Your task to perform on an android device: Open internet settings Image 0: 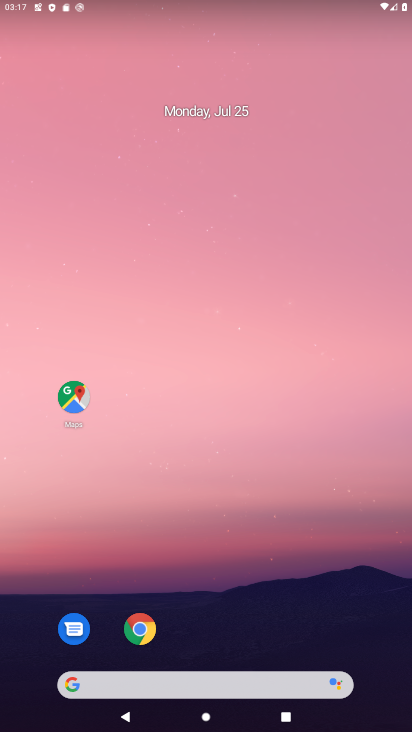
Step 0: drag from (191, 632) to (216, 90)
Your task to perform on an android device: Open internet settings Image 1: 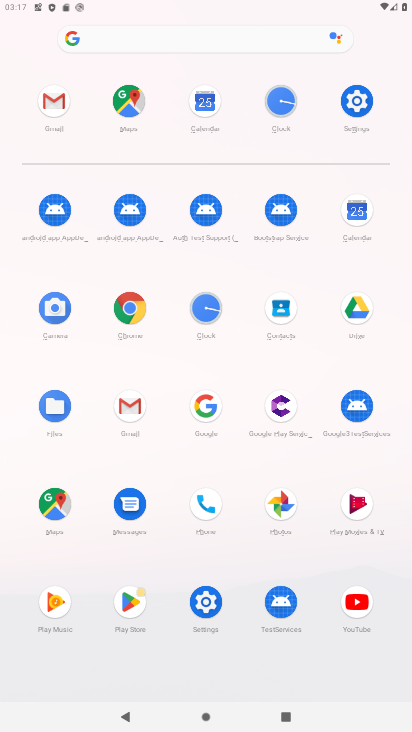
Step 1: click (351, 106)
Your task to perform on an android device: Open internet settings Image 2: 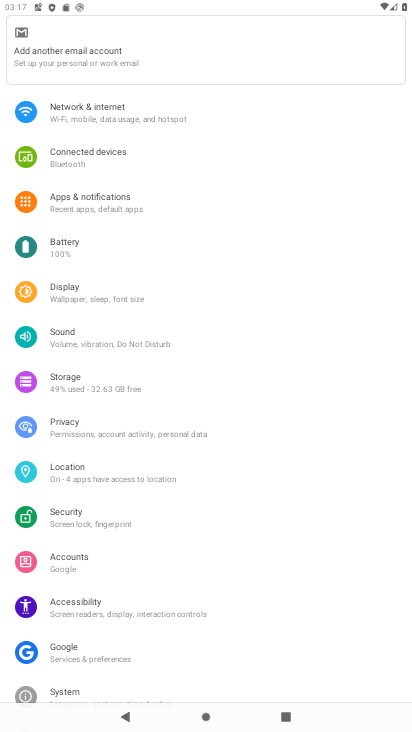
Step 2: click (103, 122)
Your task to perform on an android device: Open internet settings Image 3: 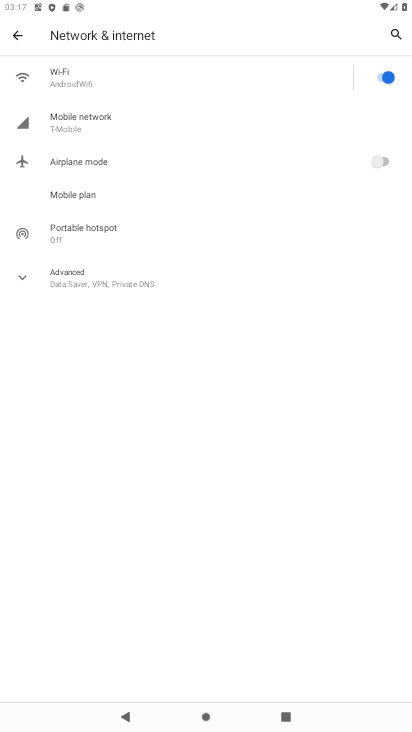
Step 3: click (21, 280)
Your task to perform on an android device: Open internet settings Image 4: 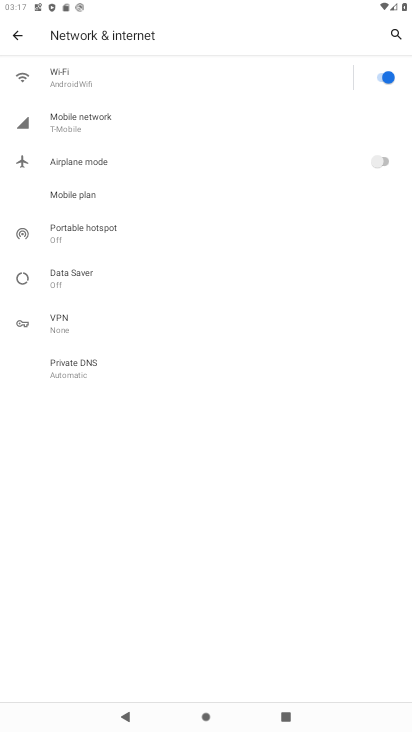
Step 4: task complete